Your task to perform on an android device: open a bookmark in the chrome app Image 0: 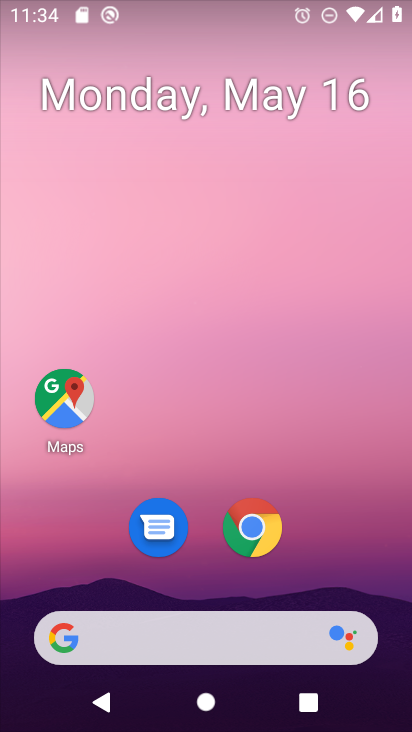
Step 0: click (253, 533)
Your task to perform on an android device: open a bookmark in the chrome app Image 1: 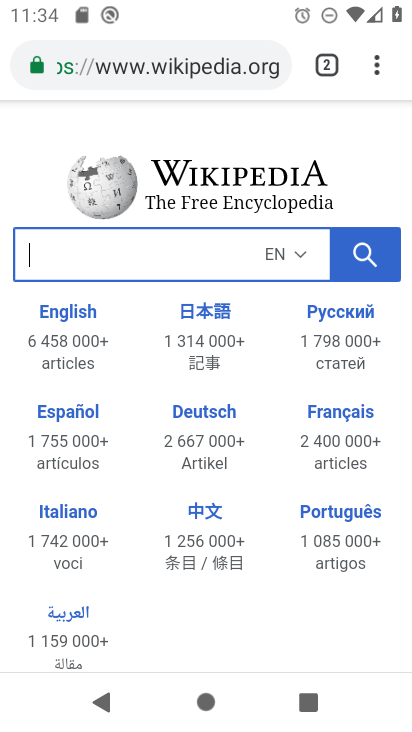
Step 1: click (382, 66)
Your task to perform on an android device: open a bookmark in the chrome app Image 2: 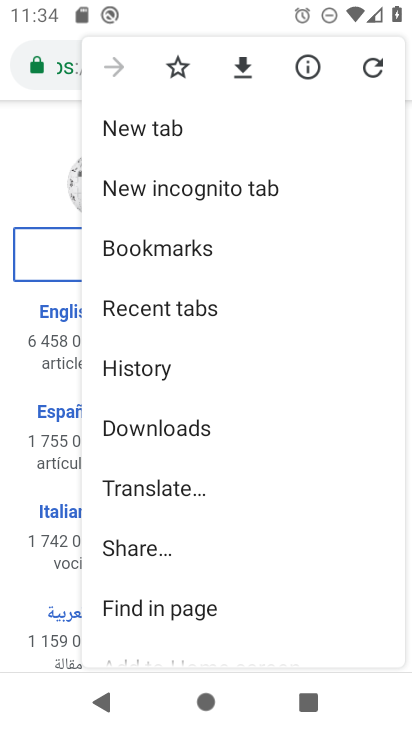
Step 2: click (174, 249)
Your task to perform on an android device: open a bookmark in the chrome app Image 3: 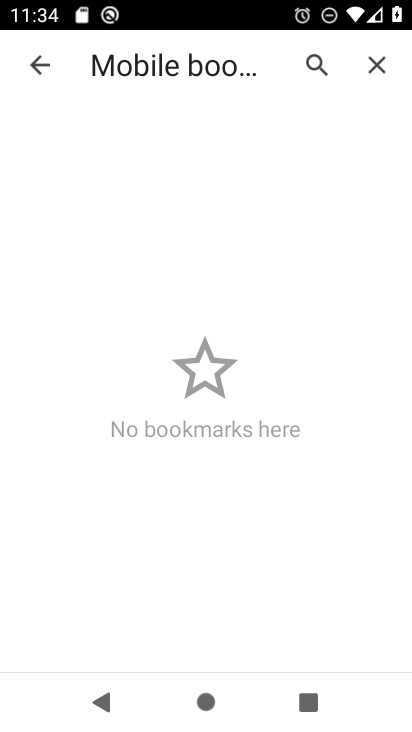
Step 3: task complete